Your task to perform on an android device: Go to Reddit.com Image 0: 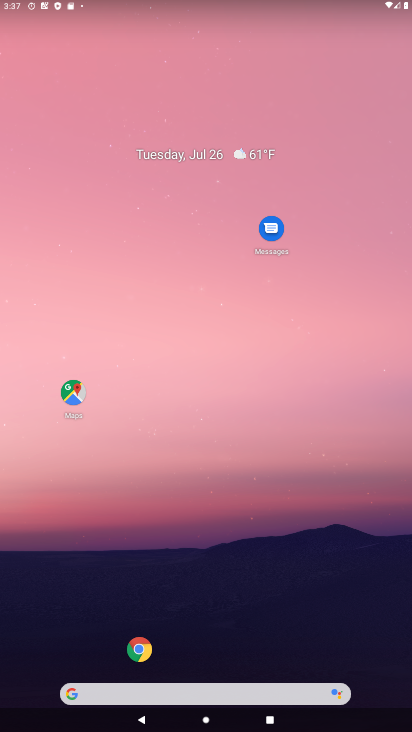
Step 0: click (122, 689)
Your task to perform on an android device: Go to Reddit.com Image 1: 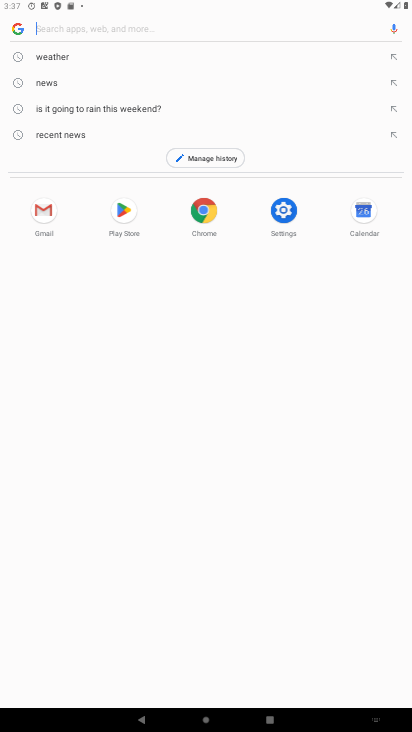
Step 1: type "Reddit.com"
Your task to perform on an android device: Go to Reddit.com Image 2: 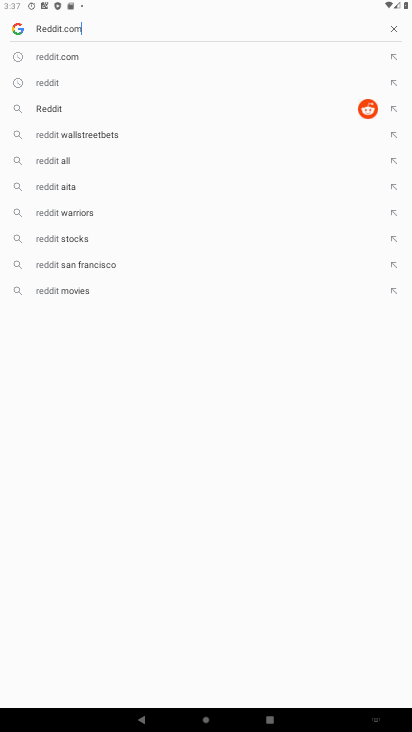
Step 2: type ""
Your task to perform on an android device: Go to Reddit.com Image 3: 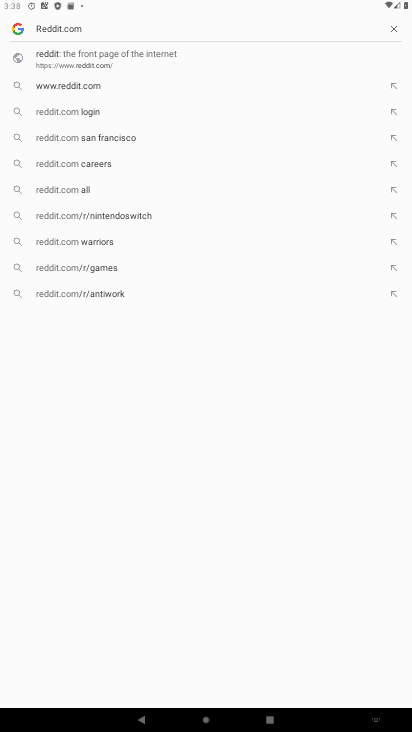
Step 3: click (44, 85)
Your task to perform on an android device: Go to Reddit.com Image 4: 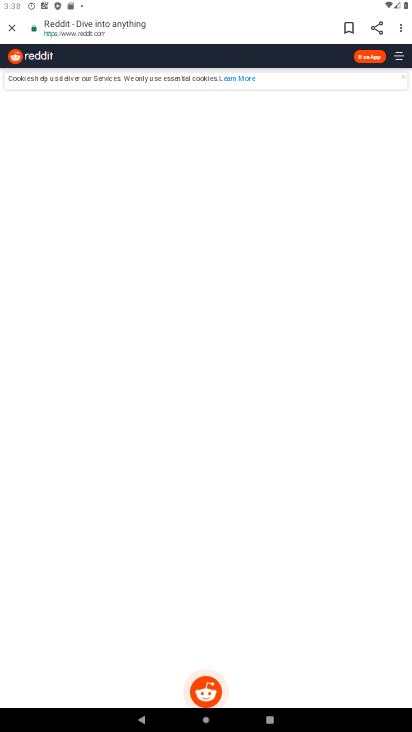
Step 4: task complete